Your task to perform on an android device: search for starred emails in the gmail app Image 0: 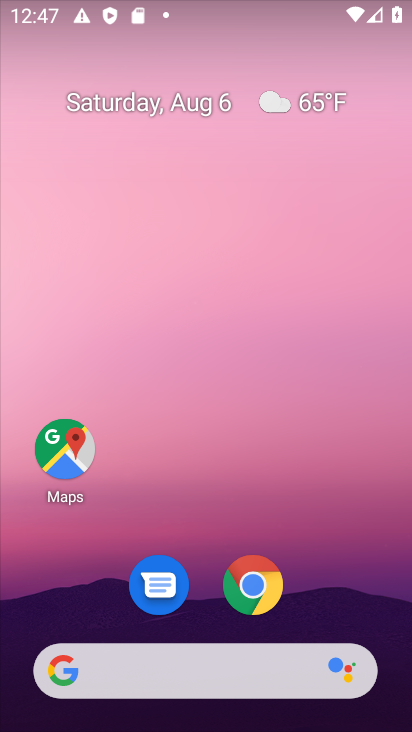
Step 0: drag from (223, 504) to (251, 0)
Your task to perform on an android device: search for starred emails in the gmail app Image 1: 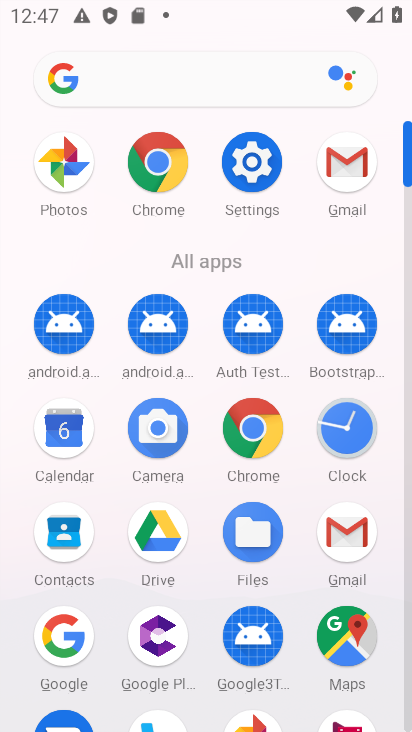
Step 1: click (344, 173)
Your task to perform on an android device: search for starred emails in the gmail app Image 2: 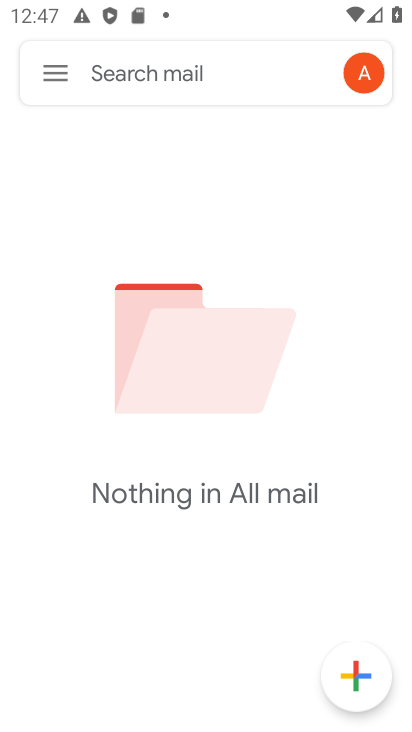
Step 2: click (59, 75)
Your task to perform on an android device: search for starred emails in the gmail app Image 3: 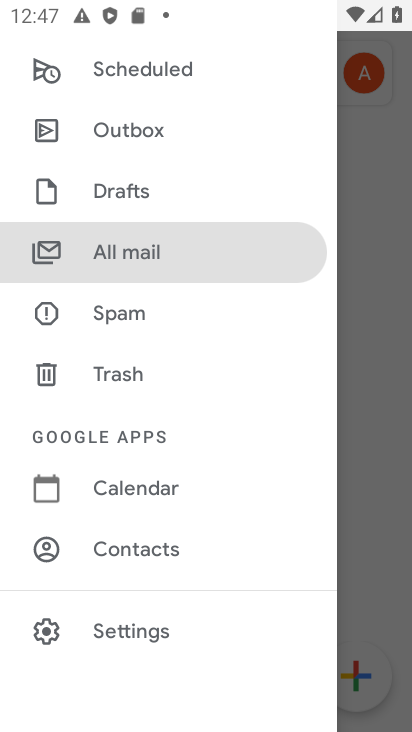
Step 3: drag from (209, 156) to (208, 627)
Your task to perform on an android device: search for starred emails in the gmail app Image 4: 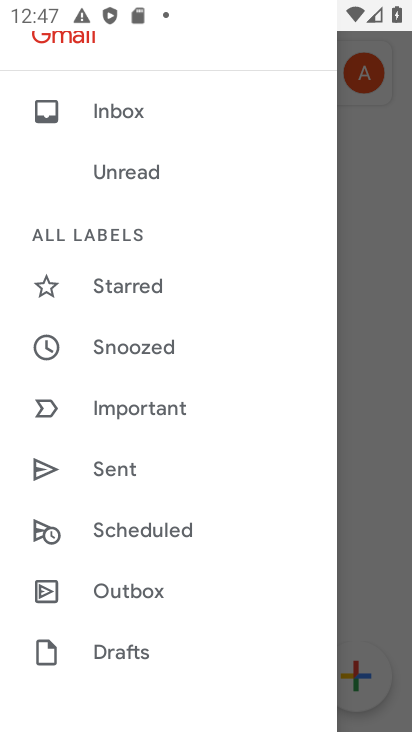
Step 4: click (163, 285)
Your task to perform on an android device: search for starred emails in the gmail app Image 5: 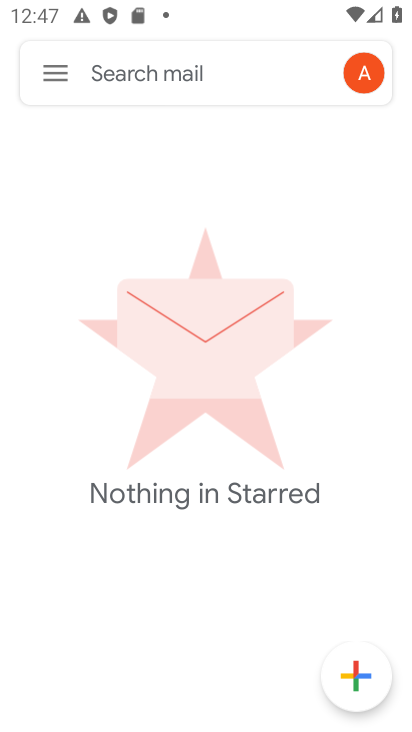
Step 5: task complete